Your task to perform on an android device: clear history in the chrome app Image 0: 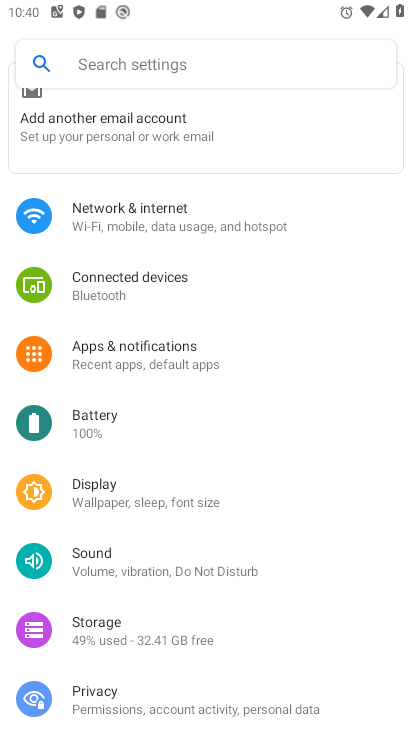
Step 0: press home button
Your task to perform on an android device: clear history in the chrome app Image 1: 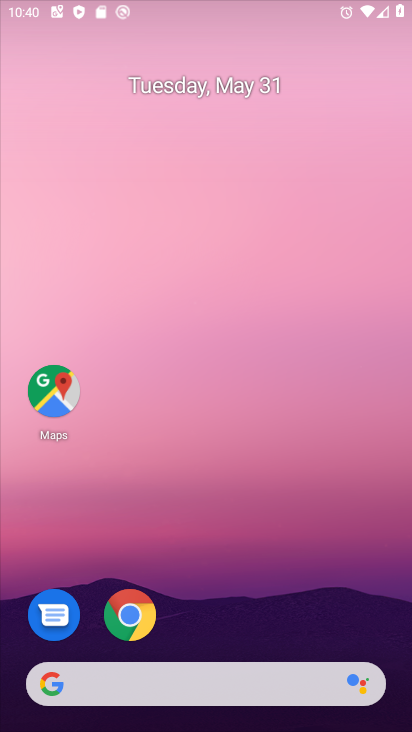
Step 1: drag from (292, 578) to (299, 79)
Your task to perform on an android device: clear history in the chrome app Image 2: 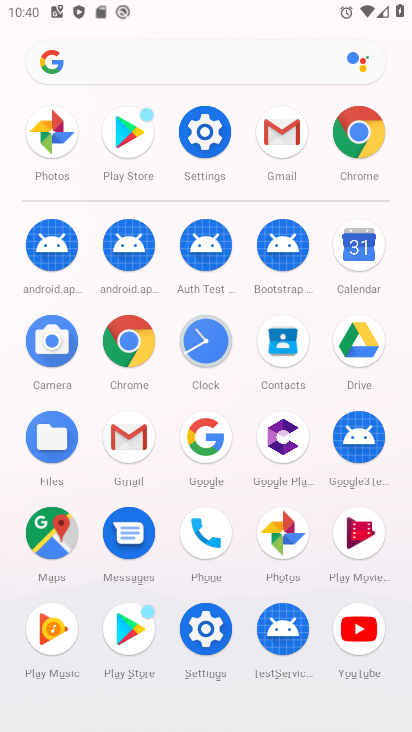
Step 2: click (364, 146)
Your task to perform on an android device: clear history in the chrome app Image 3: 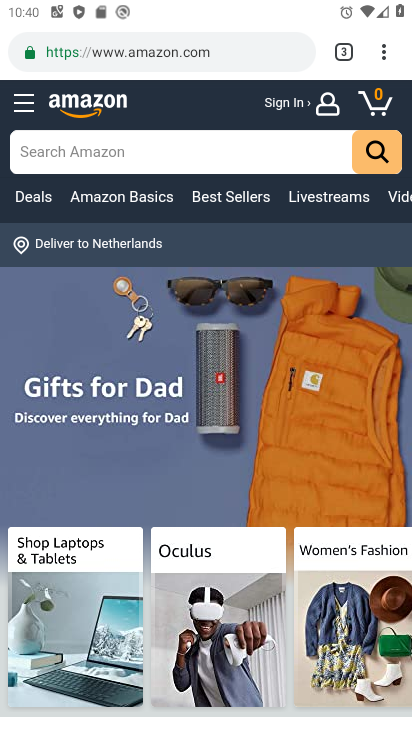
Step 3: drag from (383, 48) to (192, 303)
Your task to perform on an android device: clear history in the chrome app Image 4: 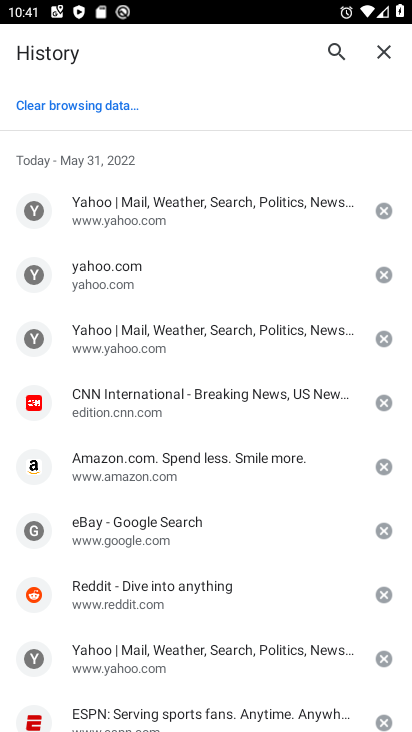
Step 4: click (48, 107)
Your task to perform on an android device: clear history in the chrome app Image 5: 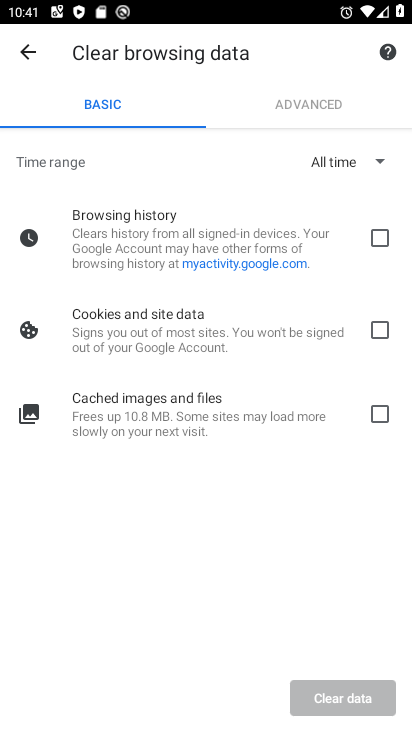
Step 5: click (369, 234)
Your task to perform on an android device: clear history in the chrome app Image 6: 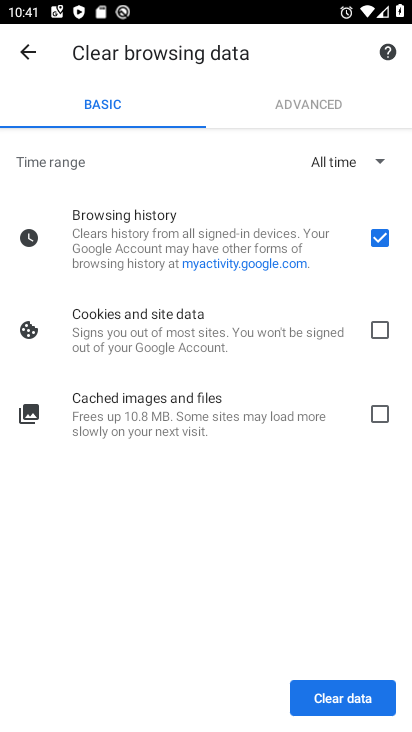
Step 6: click (348, 695)
Your task to perform on an android device: clear history in the chrome app Image 7: 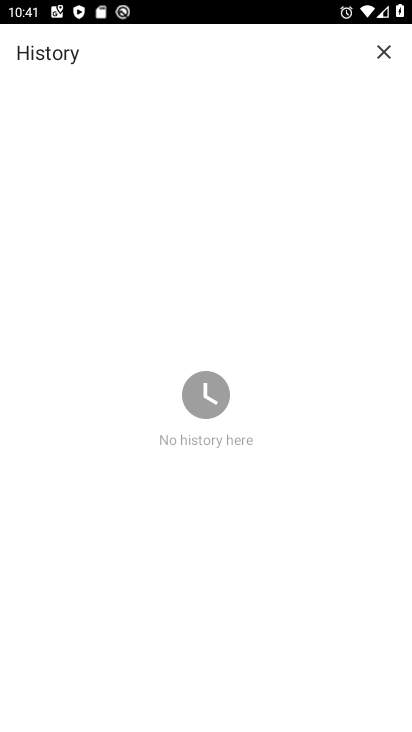
Step 7: task complete